Your task to perform on an android device: Open Amazon Image 0: 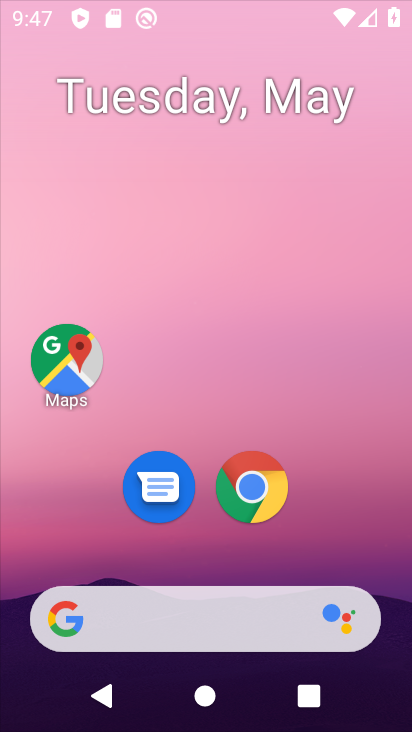
Step 0: drag from (244, 510) to (328, 66)
Your task to perform on an android device: Open Amazon Image 1: 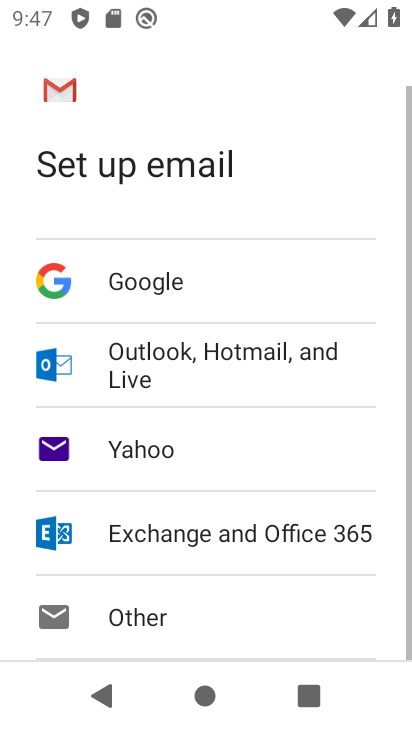
Step 1: press home button
Your task to perform on an android device: Open Amazon Image 2: 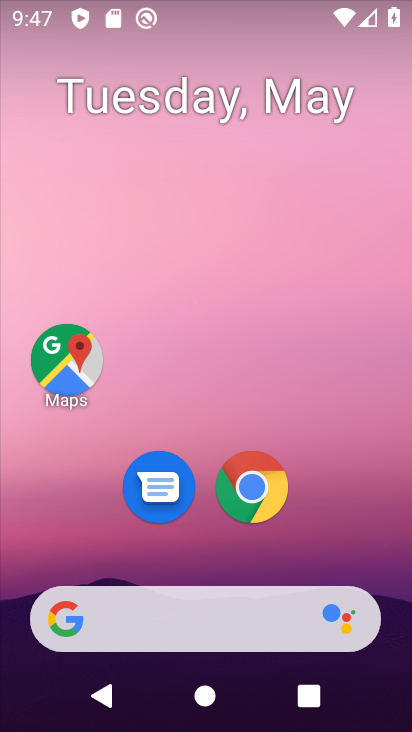
Step 2: drag from (204, 546) to (220, 198)
Your task to perform on an android device: Open Amazon Image 3: 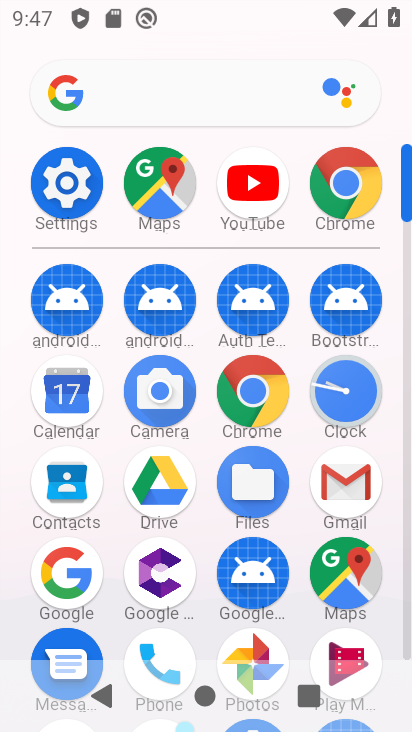
Step 3: click (345, 182)
Your task to perform on an android device: Open Amazon Image 4: 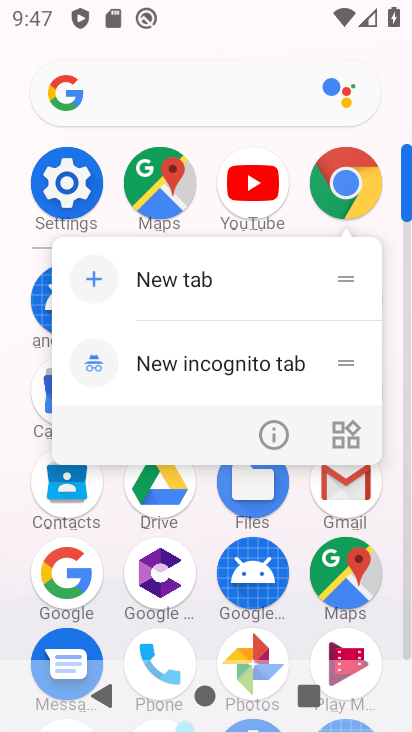
Step 4: click (273, 434)
Your task to perform on an android device: Open Amazon Image 5: 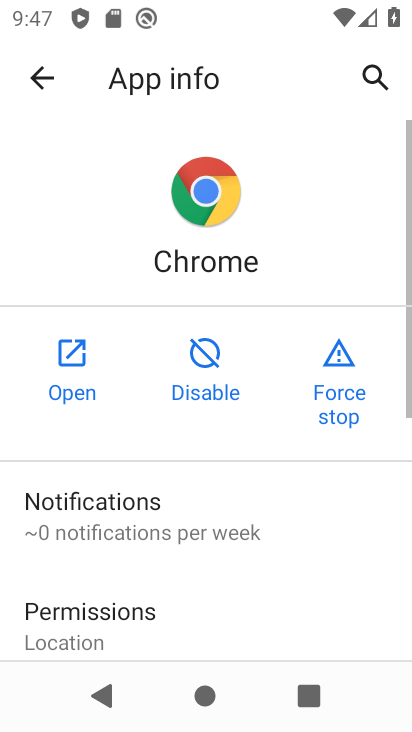
Step 5: click (58, 375)
Your task to perform on an android device: Open Amazon Image 6: 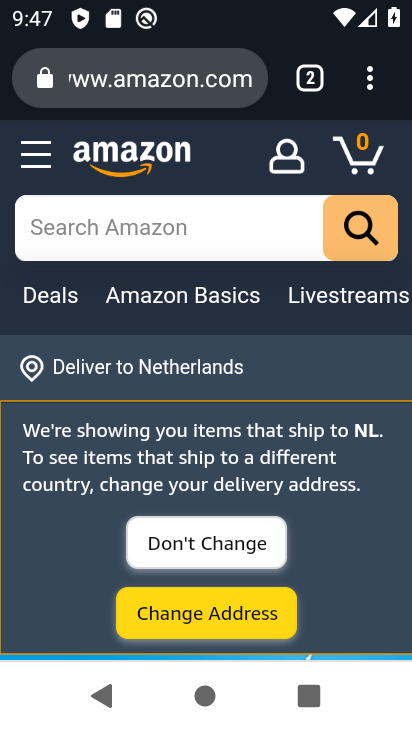
Step 6: task complete